Your task to perform on an android device: View the shopping cart on ebay. Image 0: 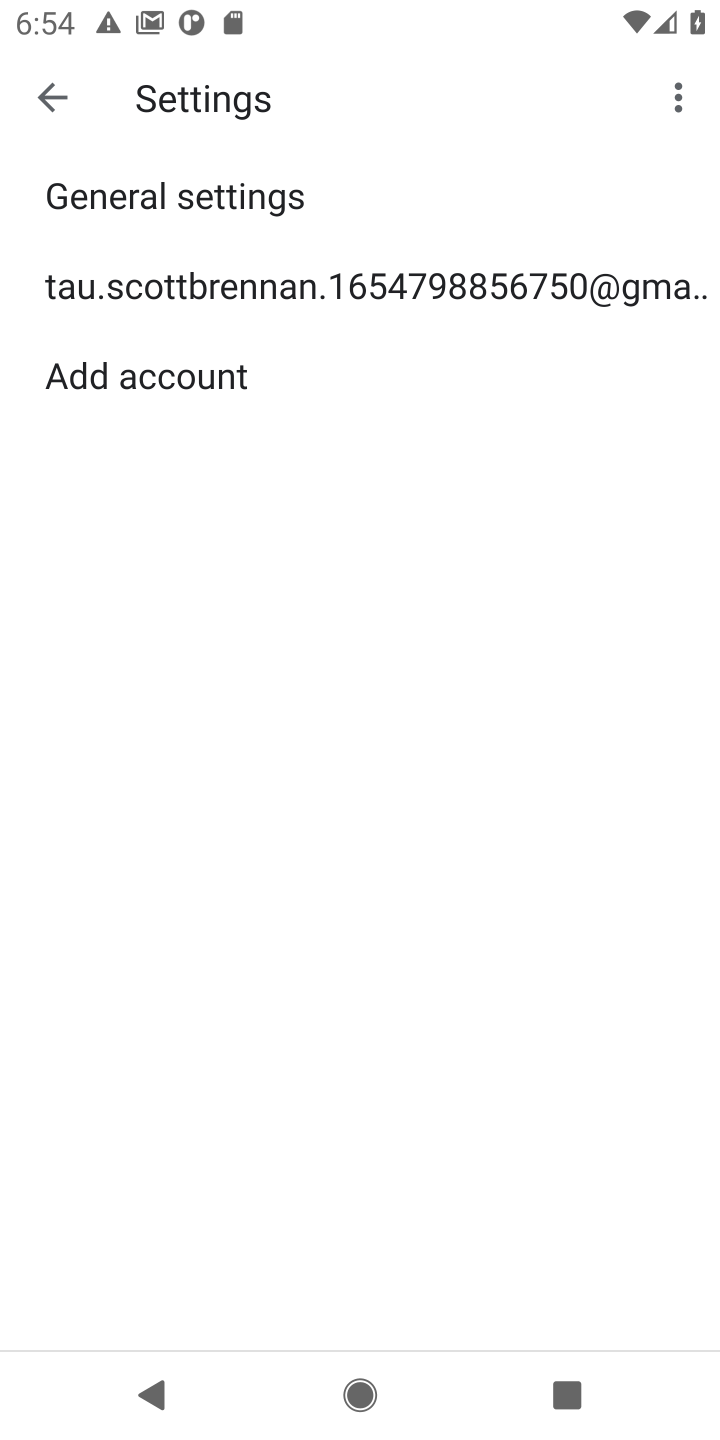
Step 0: press home button
Your task to perform on an android device: View the shopping cart on ebay. Image 1: 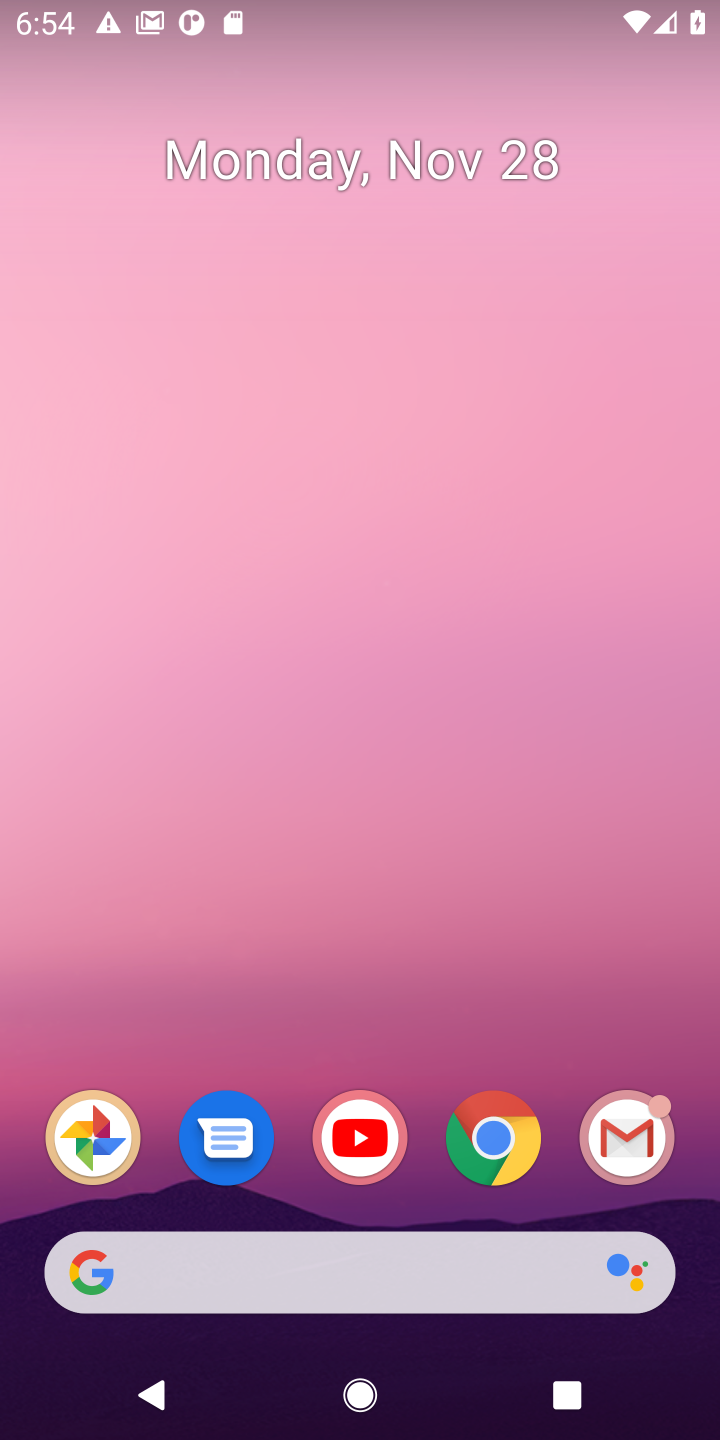
Step 1: click (491, 1148)
Your task to perform on an android device: View the shopping cart on ebay. Image 2: 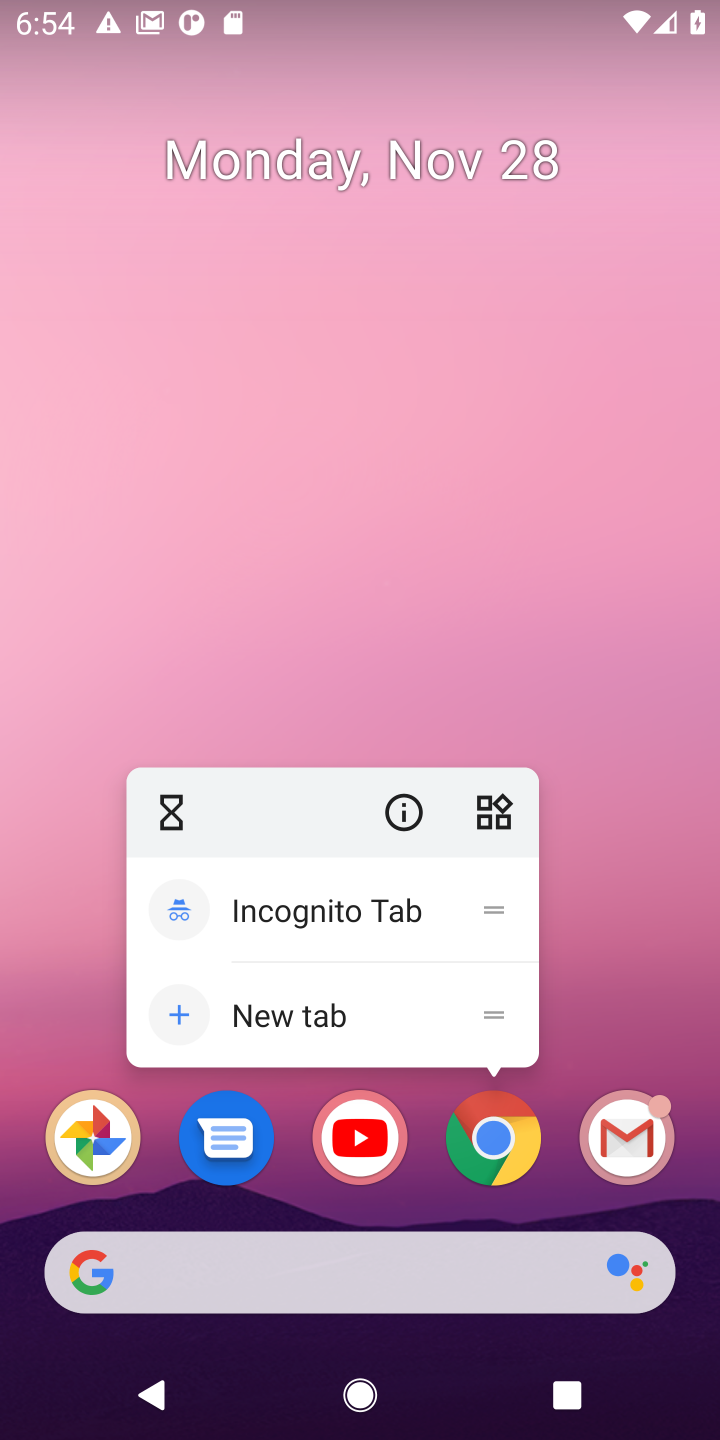
Step 2: click (491, 1148)
Your task to perform on an android device: View the shopping cart on ebay. Image 3: 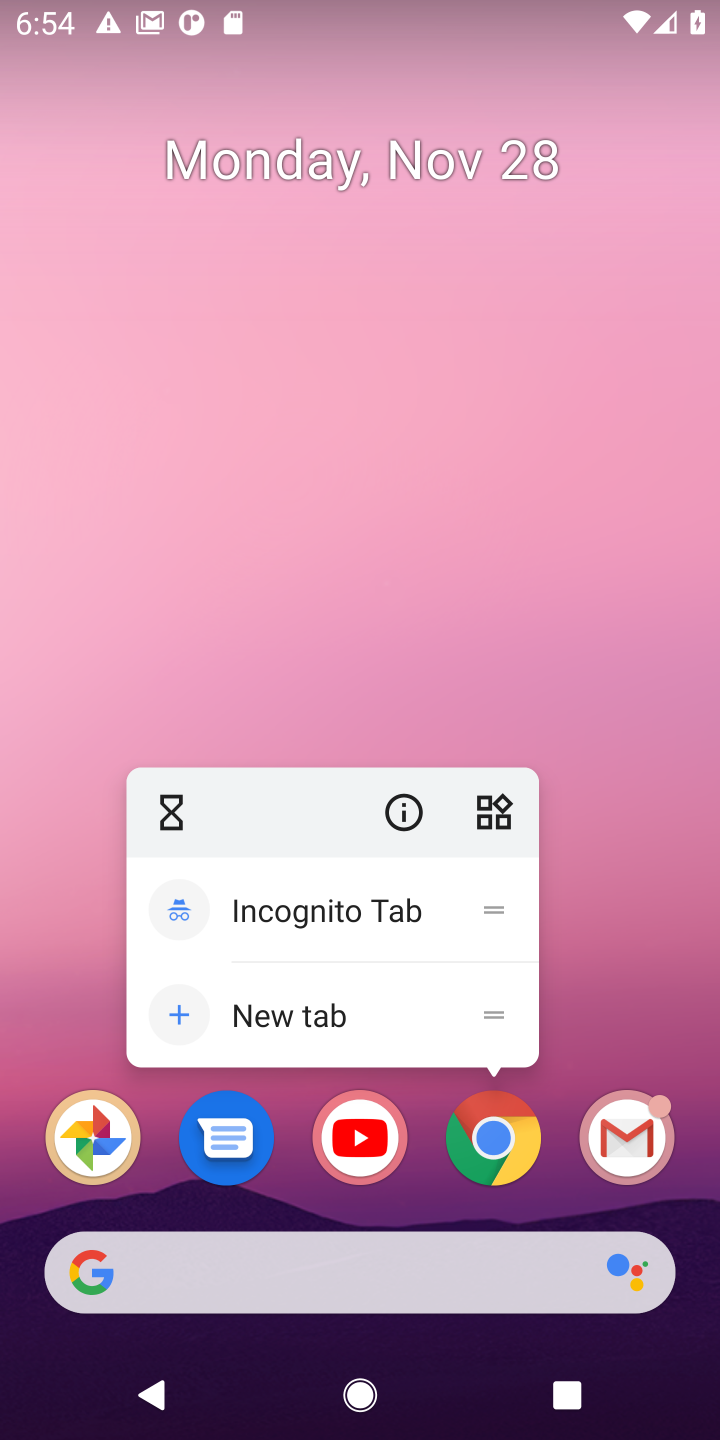
Step 3: click (491, 1148)
Your task to perform on an android device: View the shopping cart on ebay. Image 4: 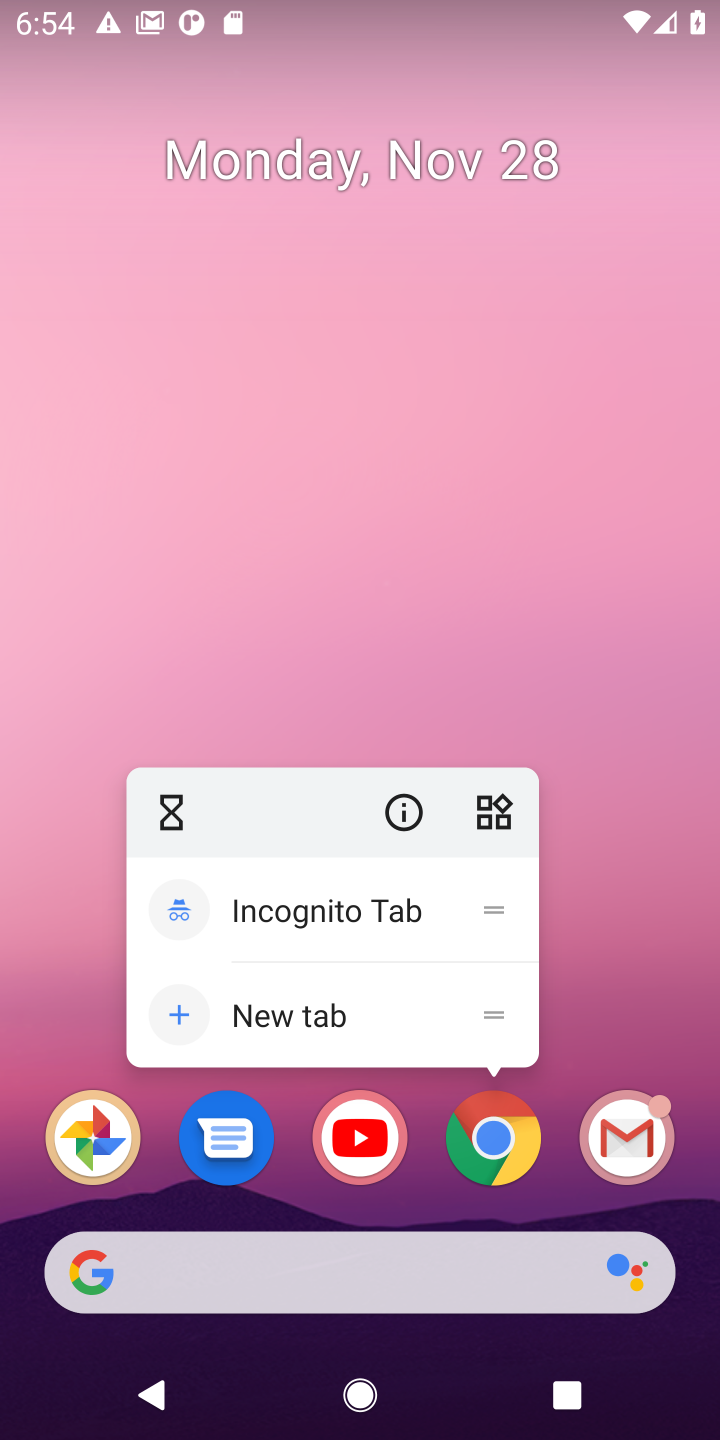
Step 4: click (491, 1148)
Your task to perform on an android device: View the shopping cart on ebay. Image 5: 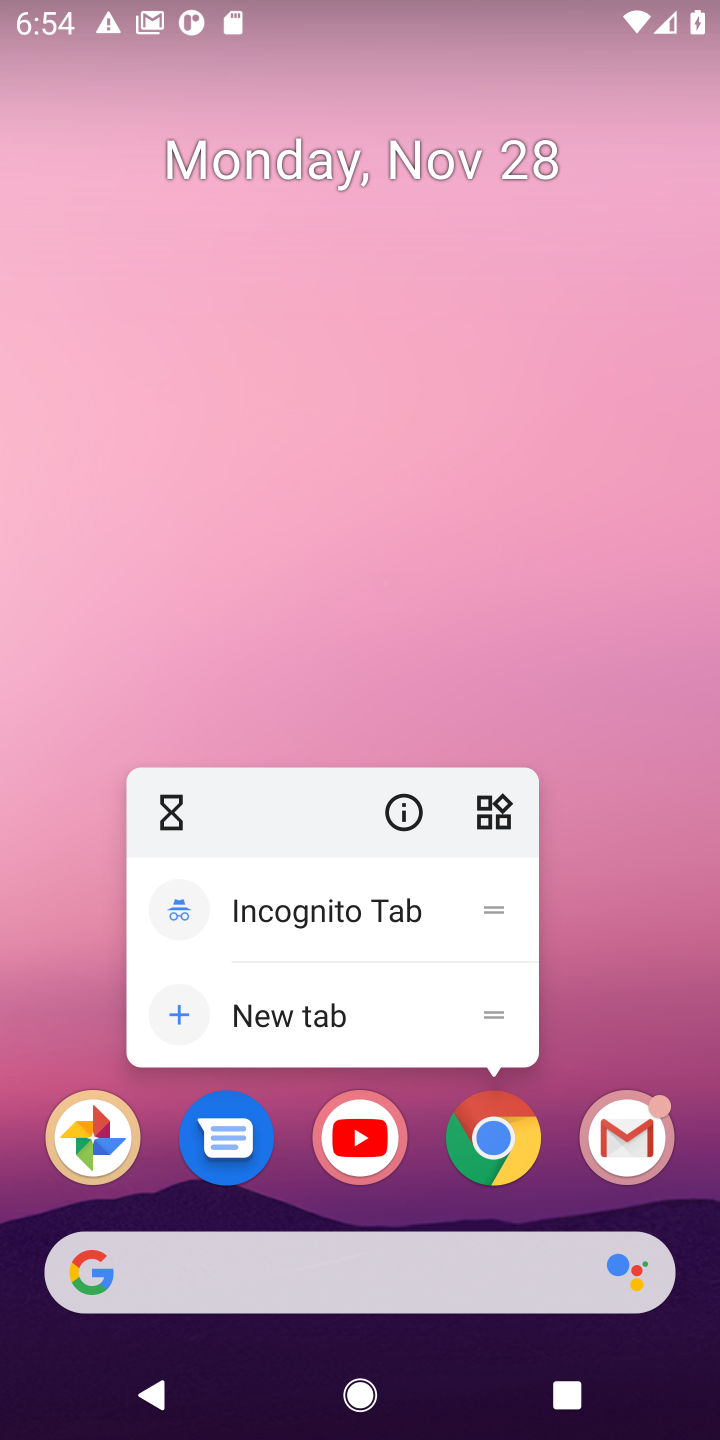
Step 5: click (688, 882)
Your task to perform on an android device: View the shopping cart on ebay. Image 6: 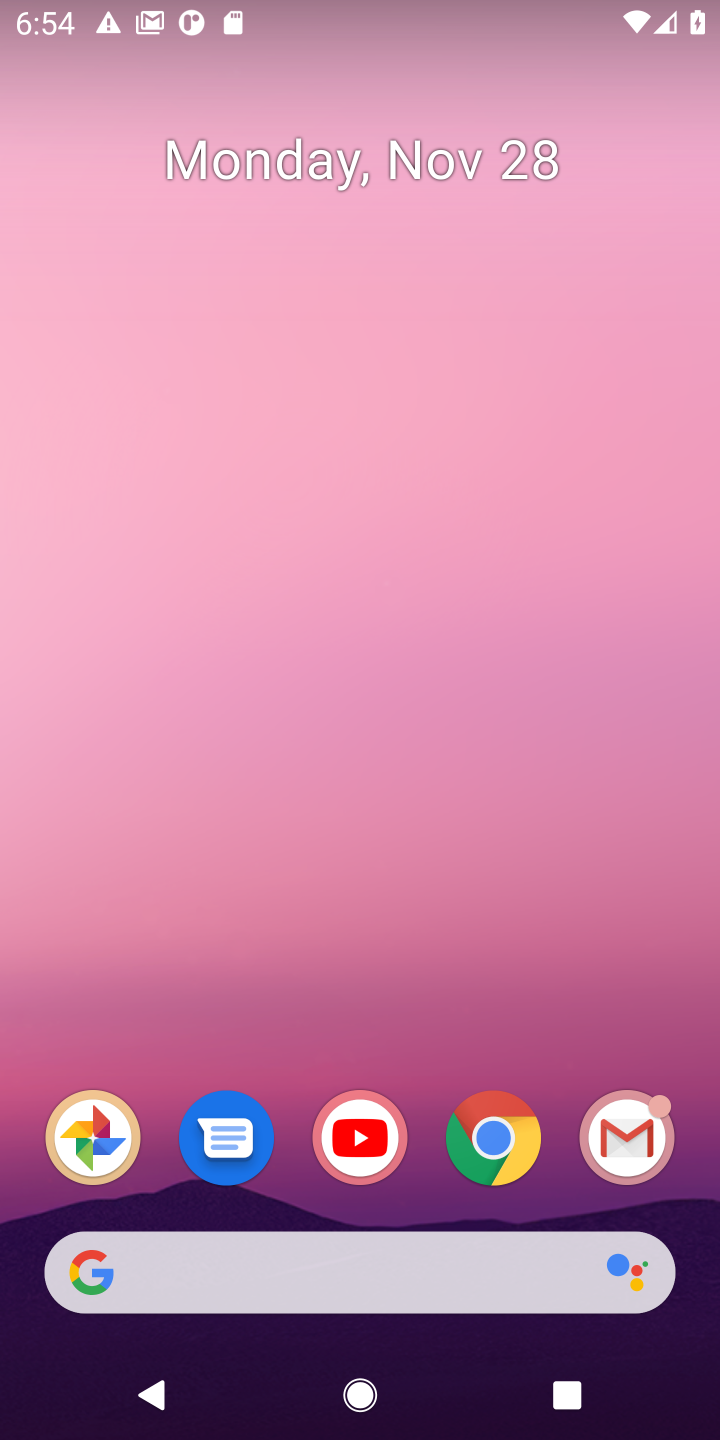
Step 6: click (511, 1133)
Your task to perform on an android device: View the shopping cart on ebay. Image 7: 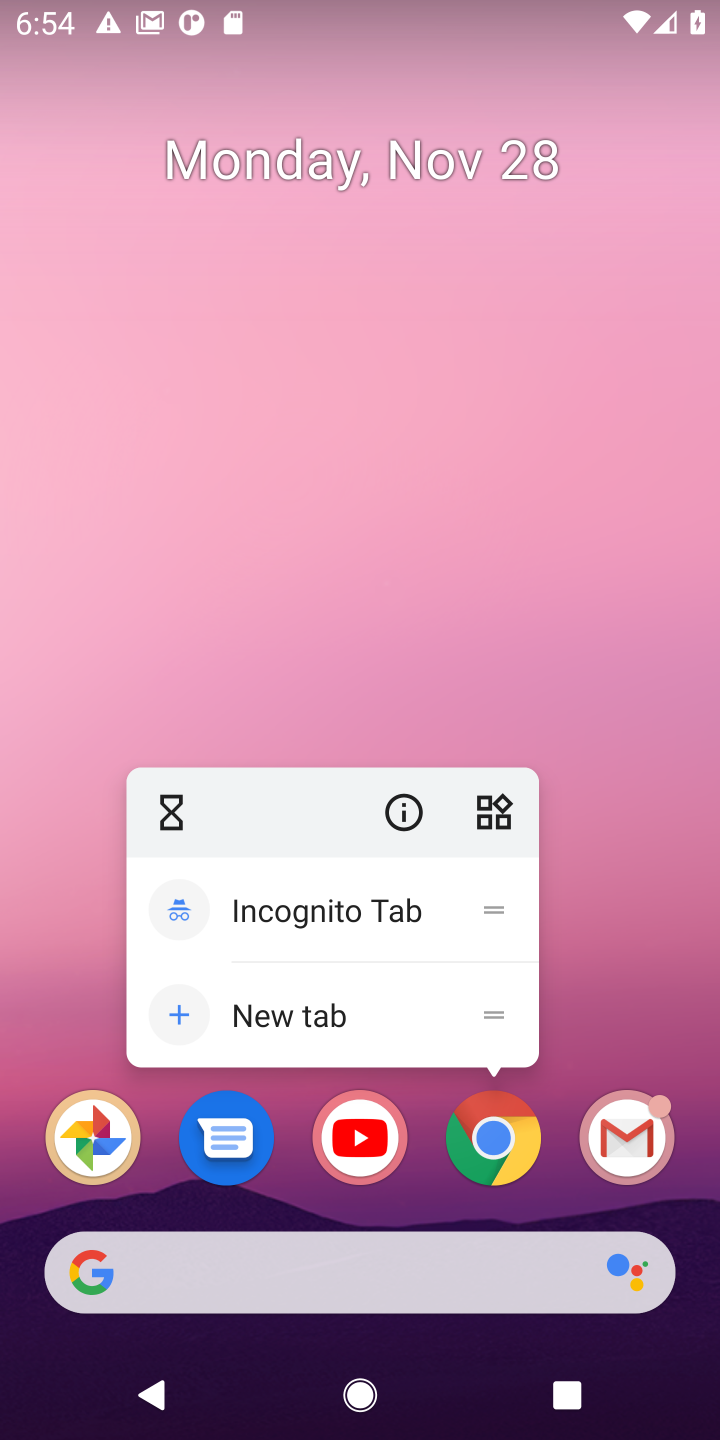
Step 7: click (500, 1141)
Your task to perform on an android device: View the shopping cart on ebay. Image 8: 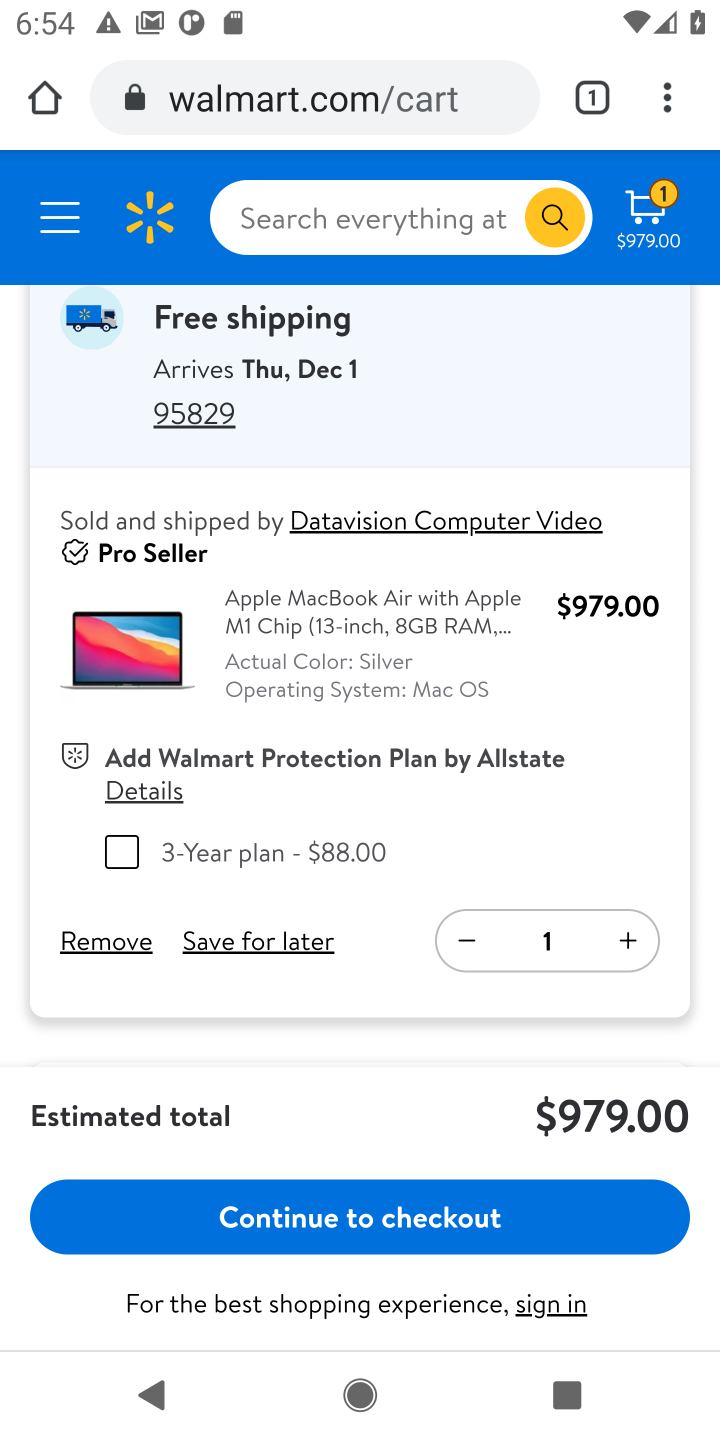
Step 8: click (339, 93)
Your task to perform on an android device: View the shopping cart on ebay. Image 9: 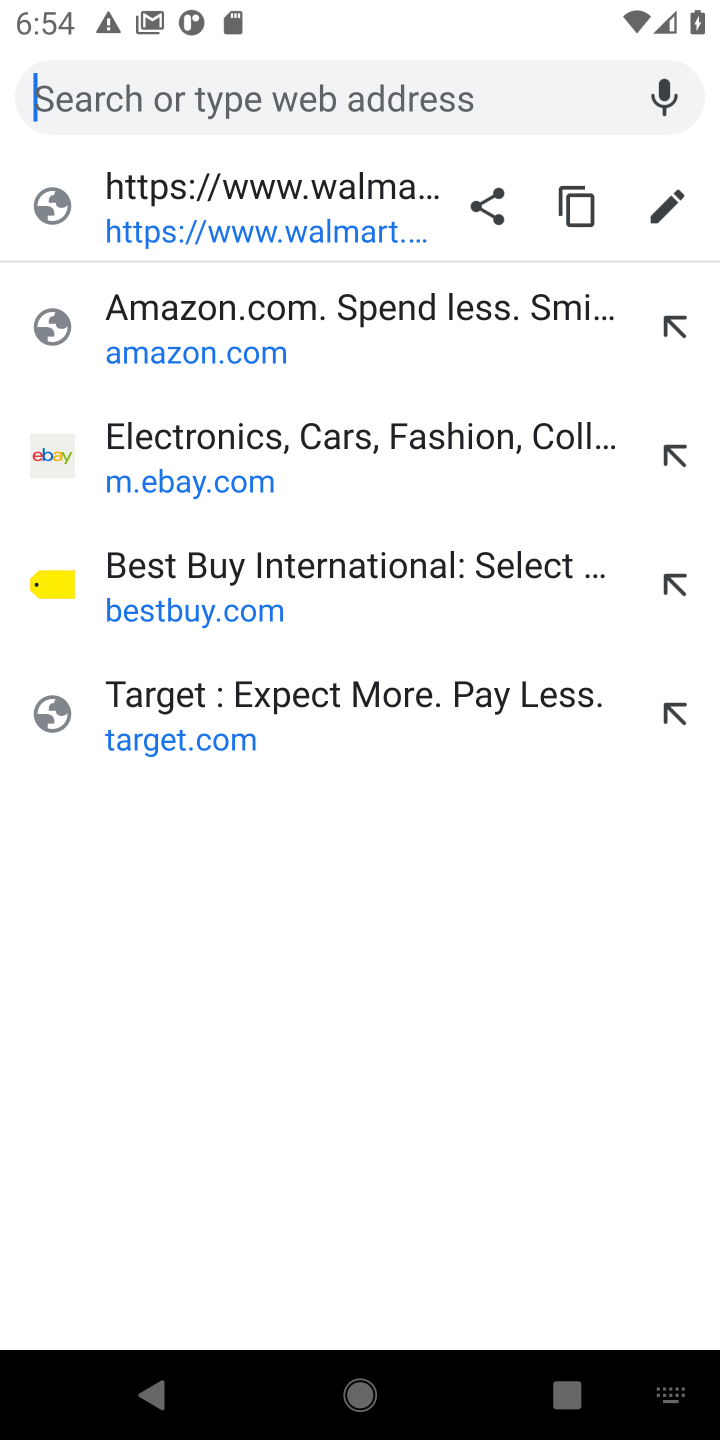
Step 9: click (129, 454)
Your task to perform on an android device: View the shopping cart on ebay. Image 10: 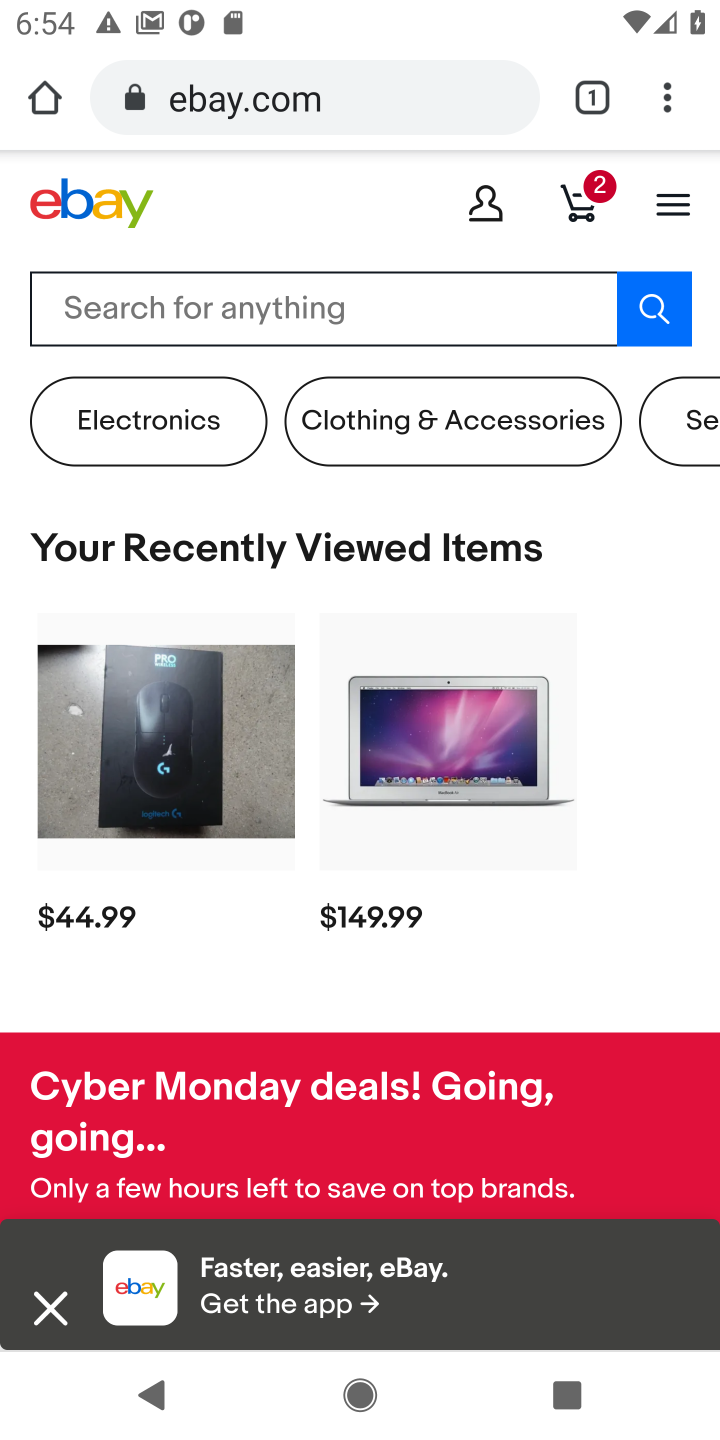
Step 10: click (576, 201)
Your task to perform on an android device: View the shopping cart on ebay. Image 11: 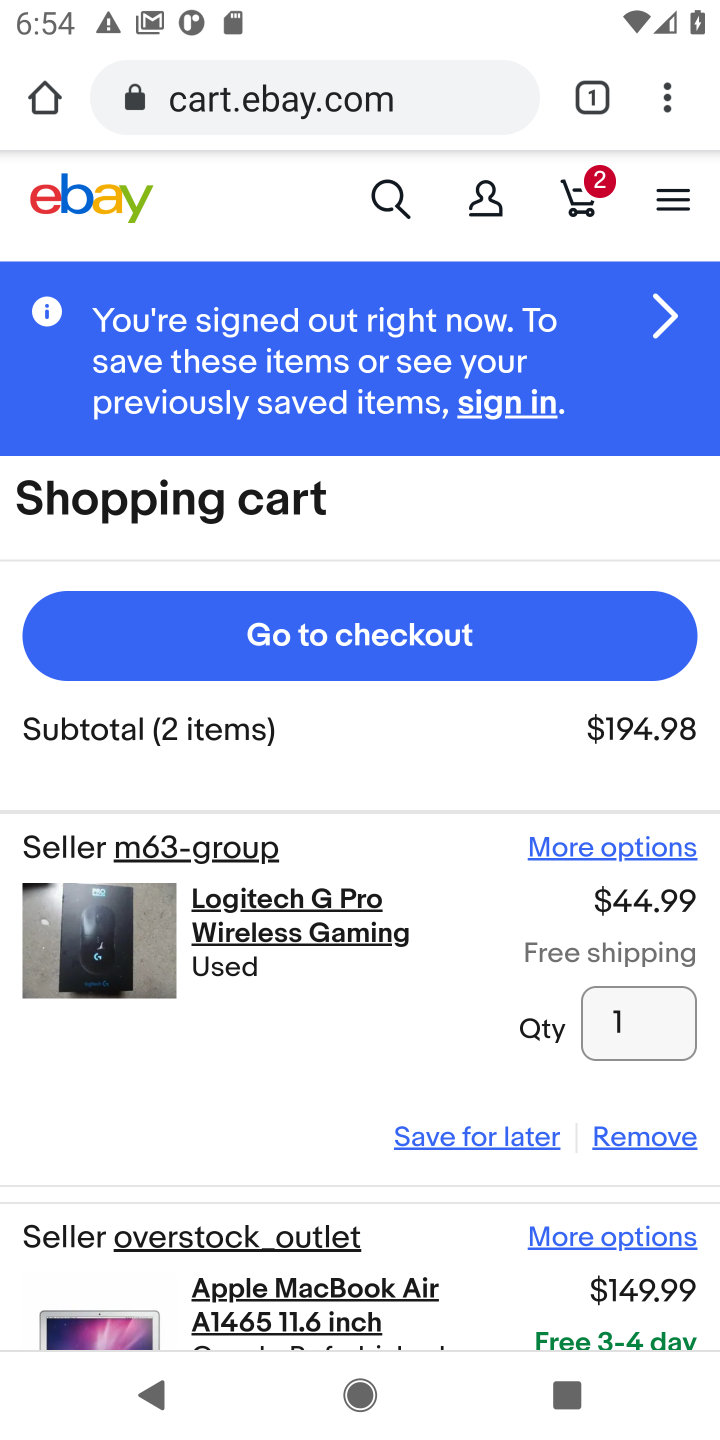
Step 11: task complete